Your task to perform on an android device: Open sound settings Image 0: 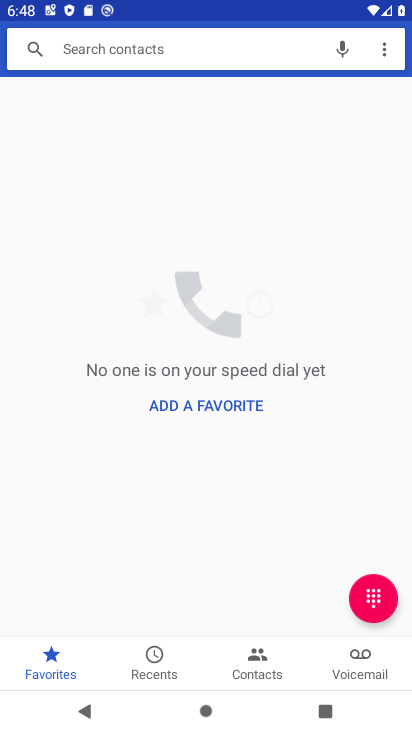
Step 0: press home button
Your task to perform on an android device: Open sound settings Image 1: 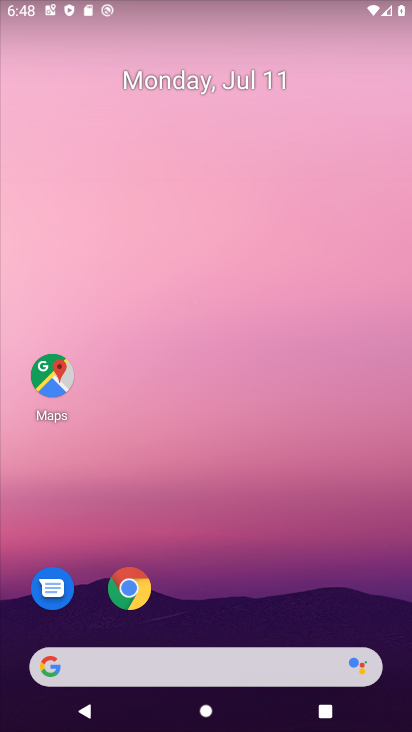
Step 1: drag from (386, 645) to (254, 42)
Your task to perform on an android device: Open sound settings Image 2: 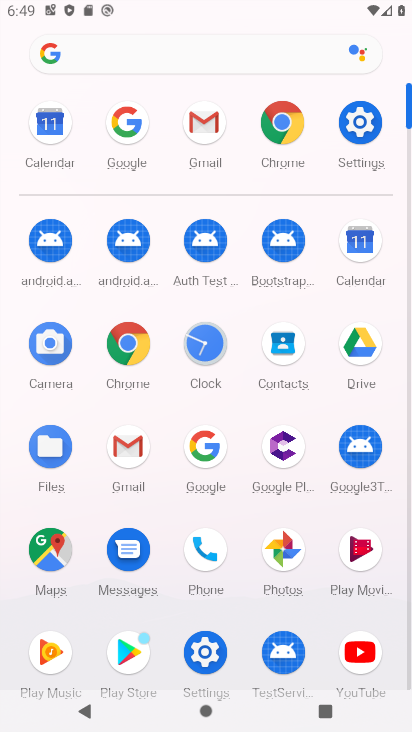
Step 2: click (203, 664)
Your task to perform on an android device: Open sound settings Image 3: 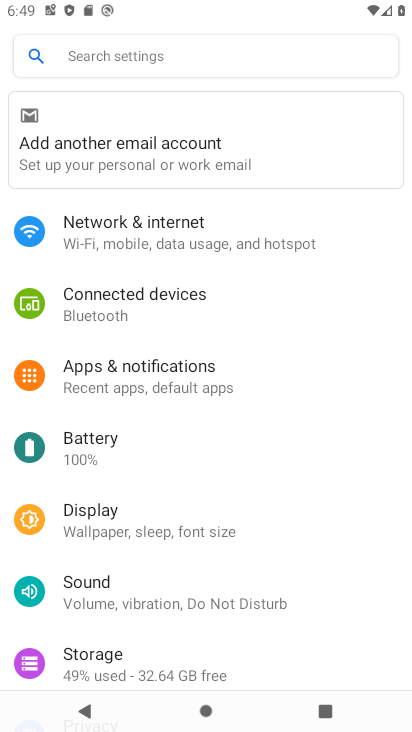
Step 3: click (115, 583)
Your task to perform on an android device: Open sound settings Image 4: 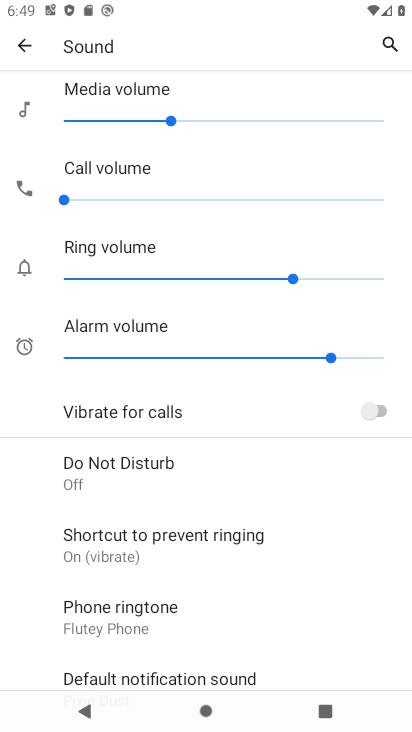
Step 4: task complete